Your task to perform on an android device: toggle javascript in the chrome app Image 0: 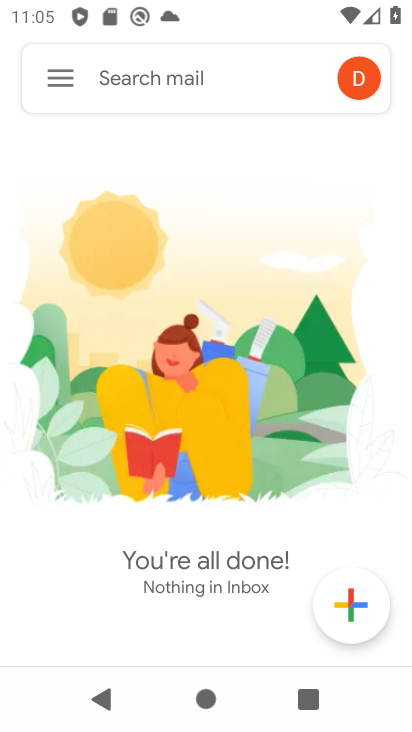
Step 0: press home button
Your task to perform on an android device: toggle javascript in the chrome app Image 1: 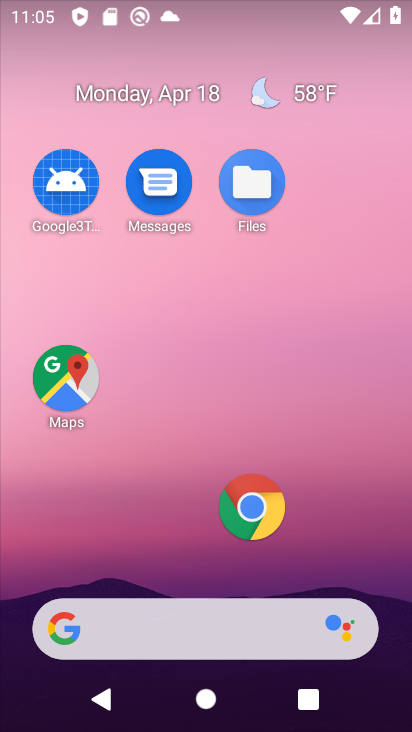
Step 1: drag from (224, 532) to (166, 50)
Your task to perform on an android device: toggle javascript in the chrome app Image 2: 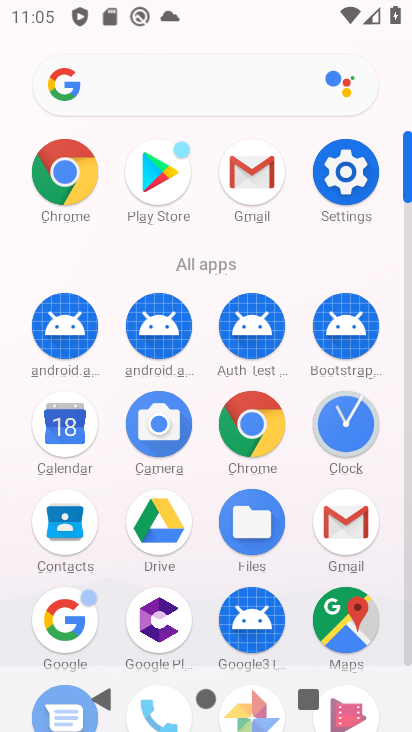
Step 2: click (81, 167)
Your task to perform on an android device: toggle javascript in the chrome app Image 3: 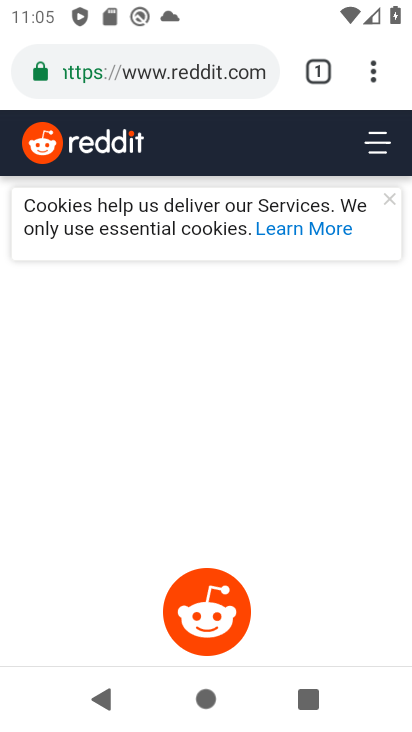
Step 3: drag from (367, 72) to (151, 492)
Your task to perform on an android device: toggle javascript in the chrome app Image 4: 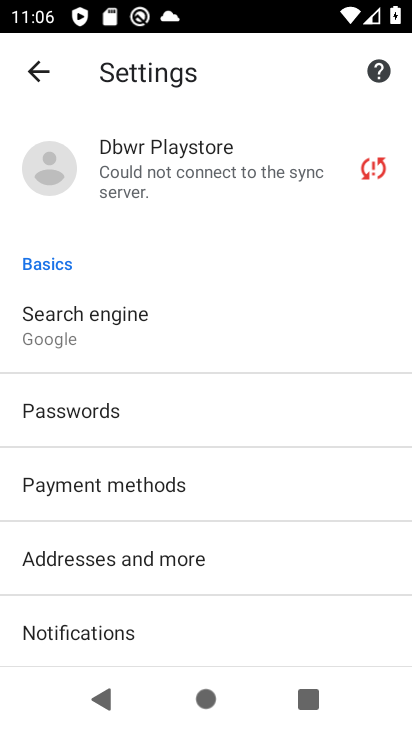
Step 4: drag from (185, 518) to (175, 98)
Your task to perform on an android device: toggle javascript in the chrome app Image 5: 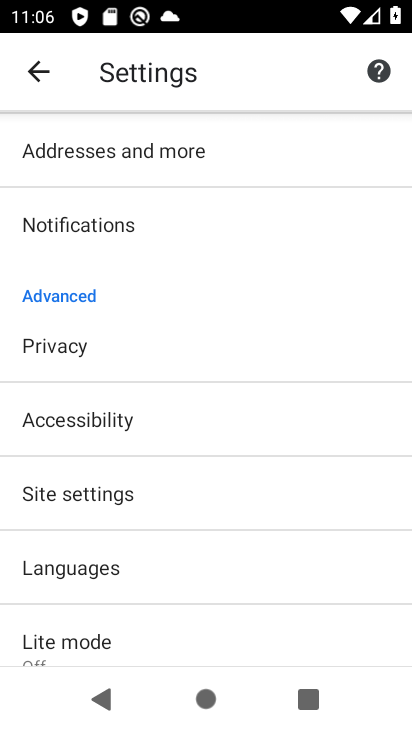
Step 5: drag from (223, 552) to (226, 230)
Your task to perform on an android device: toggle javascript in the chrome app Image 6: 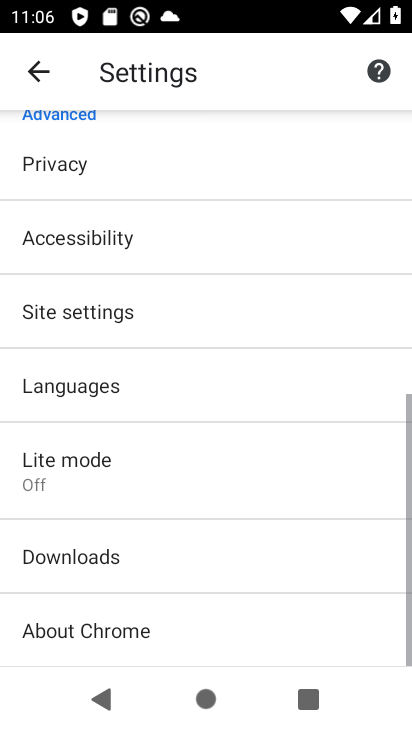
Step 6: click (91, 309)
Your task to perform on an android device: toggle javascript in the chrome app Image 7: 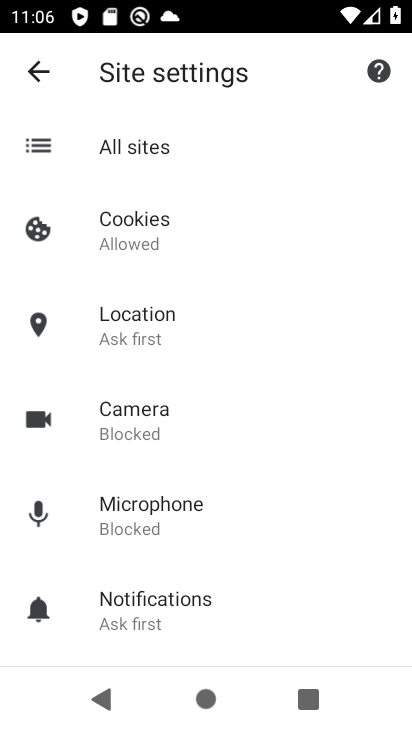
Step 7: drag from (110, 511) to (112, 127)
Your task to perform on an android device: toggle javascript in the chrome app Image 8: 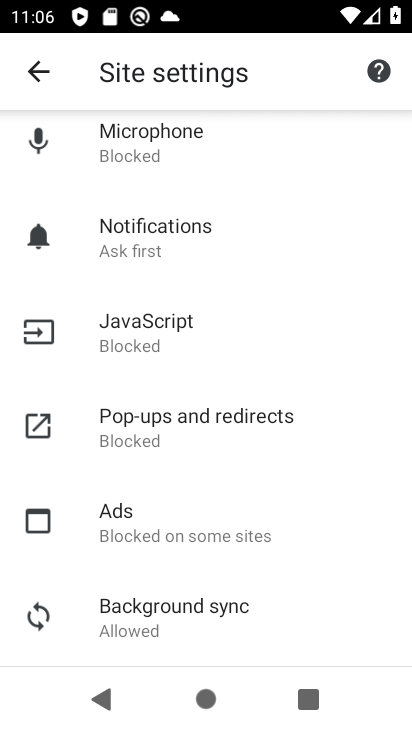
Step 8: click (164, 336)
Your task to perform on an android device: toggle javascript in the chrome app Image 9: 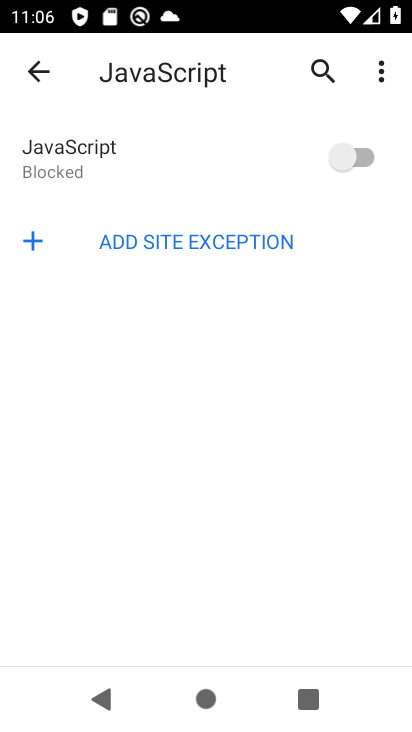
Step 9: click (345, 143)
Your task to perform on an android device: toggle javascript in the chrome app Image 10: 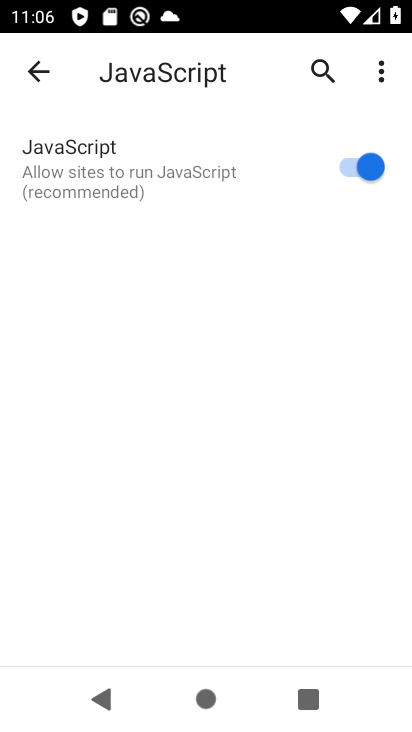
Step 10: task complete